Your task to perform on an android device: Open Google Chrome and open the bookmarks view Image 0: 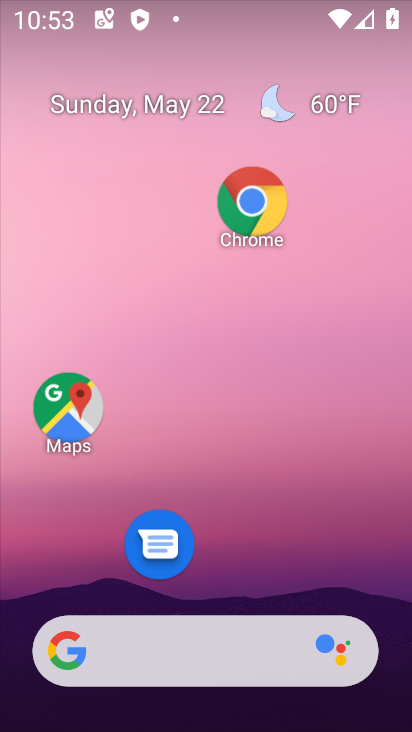
Step 0: click (263, 549)
Your task to perform on an android device: Open Google Chrome and open the bookmarks view Image 1: 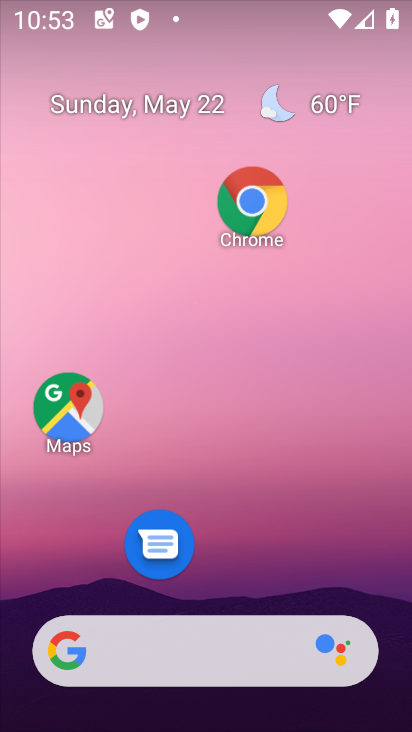
Step 1: click (252, 202)
Your task to perform on an android device: Open Google Chrome and open the bookmarks view Image 2: 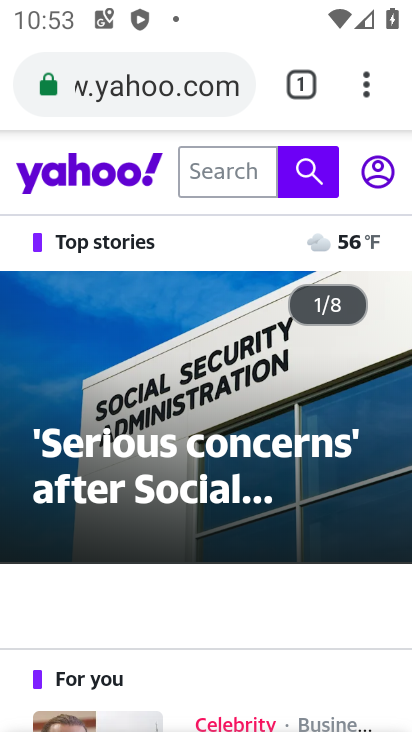
Step 2: click (361, 81)
Your task to perform on an android device: Open Google Chrome and open the bookmarks view Image 3: 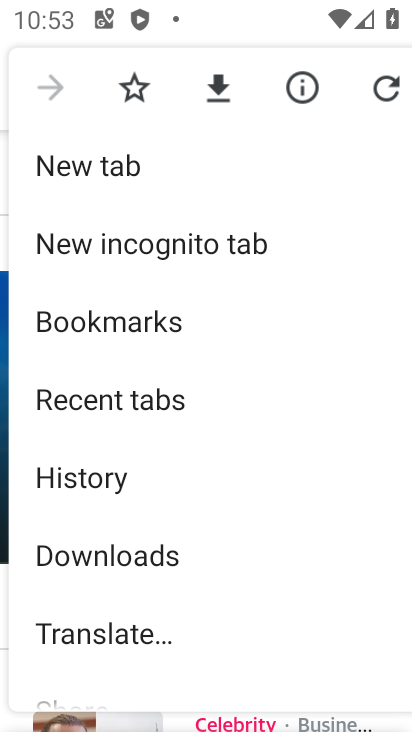
Step 3: click (142, 322)
Your task to perform on an android device: Open Google Chrome and open the bookmarks view Image 4: 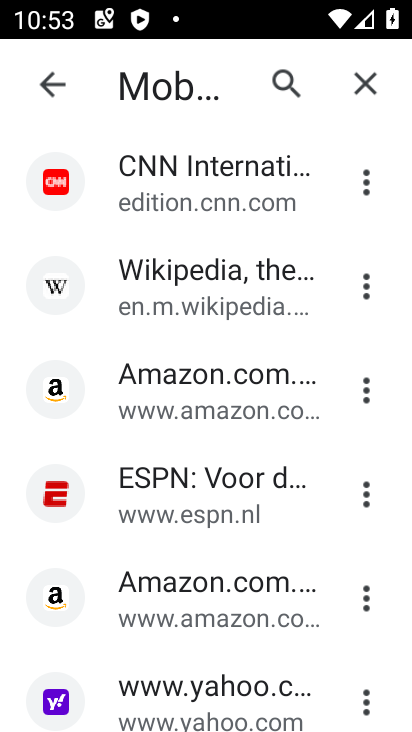
Step 4: click (166, 376)
Your task to perform on an android device: Open Google Chrome and open the bookmarks view Image 5: 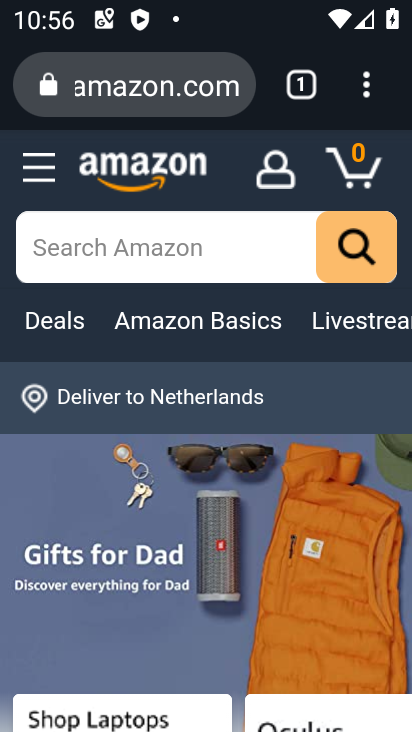
Step 5: task complete